Your task to perform on an android device: turn on translation in the chrome app Image 0: 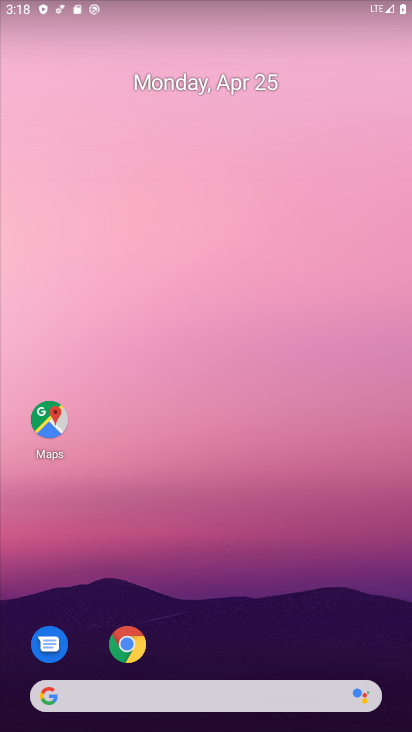
Step 0: click (143, 650)
Your task to perform on an android device: turn on translation in the chrome app Image 1: 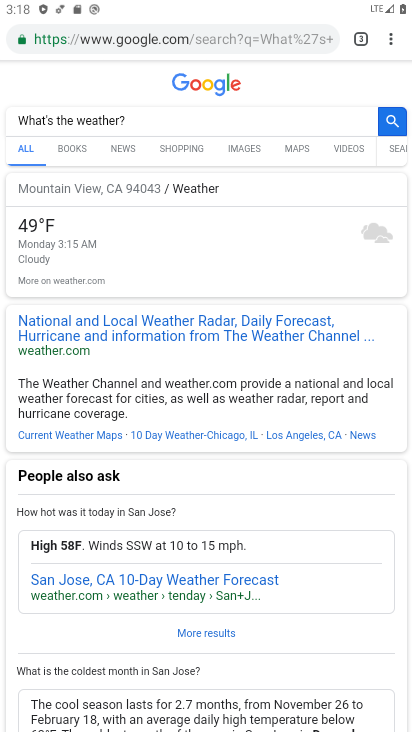
Step 1: drag from (392, 46) to (306, 486)
Your task to perform on an android device: turn on translation in the chrome app Image 2: 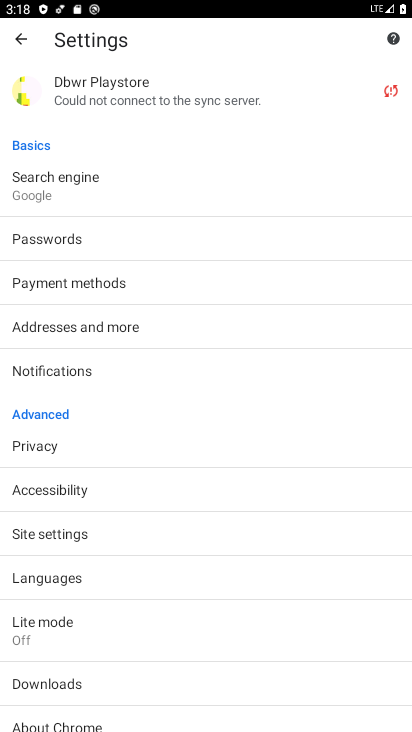
Step 2: click (246, 590)
Your task to perform on an android device: turn on translation in the chrome app Image 3: 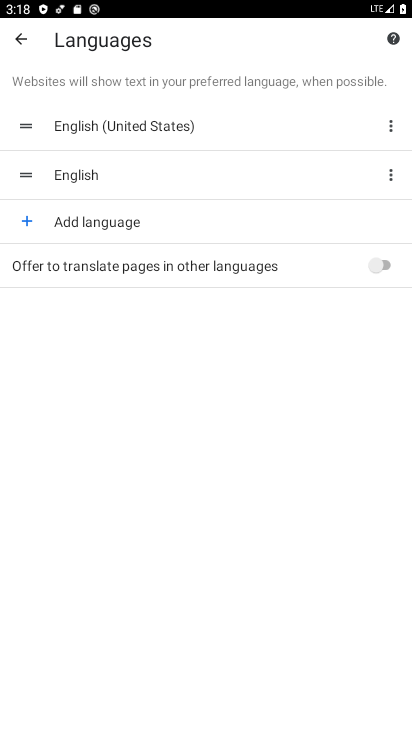
Step 3: click (384, 260)
Your task to perform on an android device: turn on translation in the chrome app Image 4: 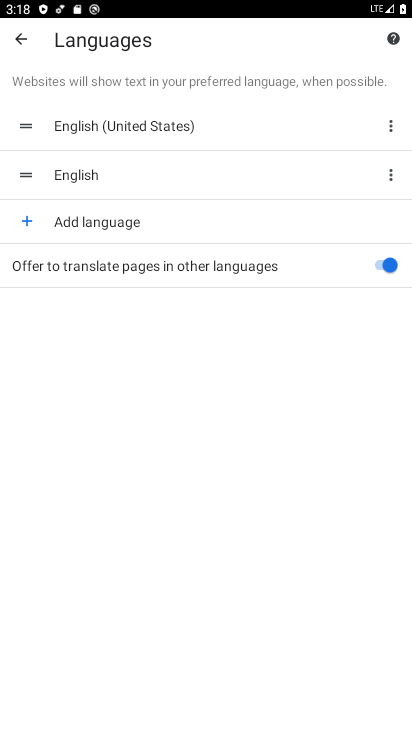
Step 4: task complete